Your task to perform on an android device: Search for Italian restaurants on Maps Image 0: 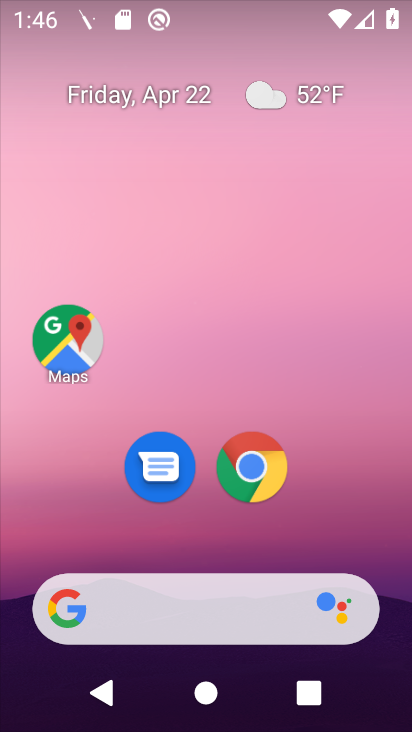
Step 0: click (79, 351)
Your task to perform on an android device: Search for Italian restaurants on Maps Image 1: 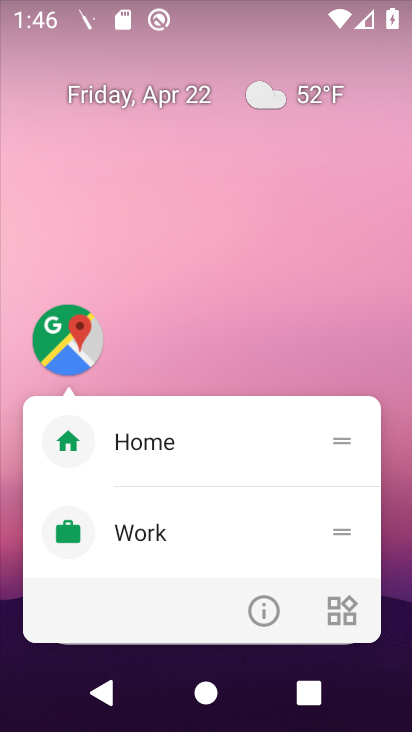
Step 1: click (72, 359)
Your task to perform on an android device: Search for Italian restaurants on Maps Image 2: 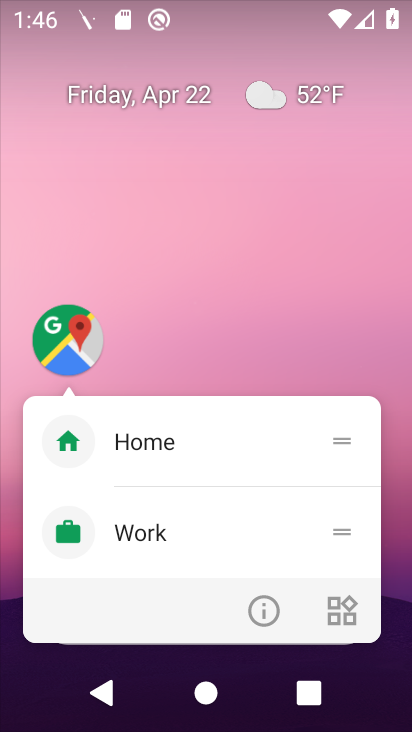
Step 2: click (52, 356)
Your task to perform on an android device: Search for Italian restaurants on Maps Image 3: 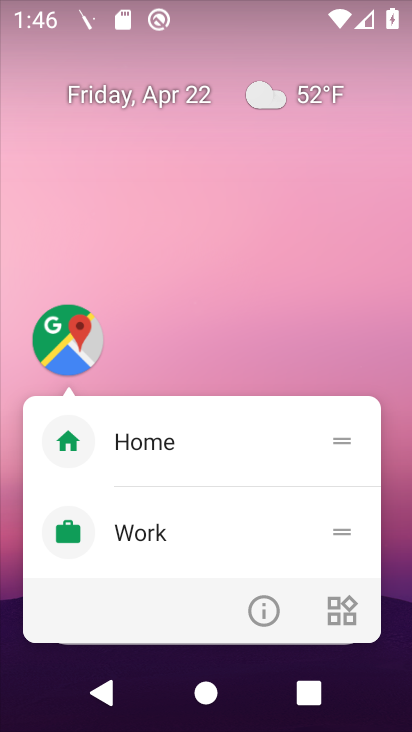
Step 3: click (70, 344)
Your task to perform on an android device: Search for Italian restaurants on Maps Image 4: 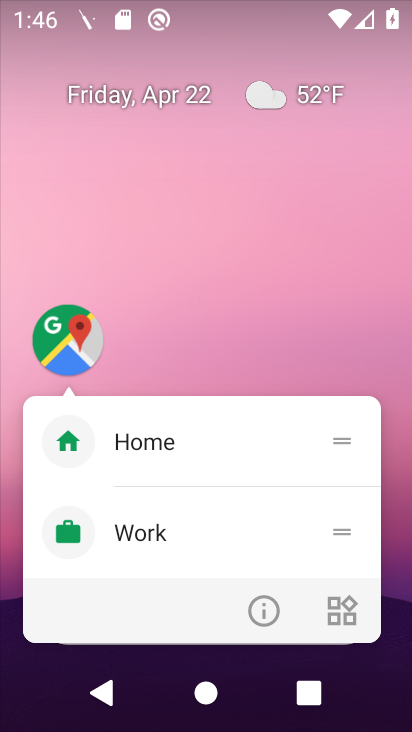
Step 4: click (76, 359)
Your task to perform on an android device: Search for Italian restaurants on Maps Image 5: 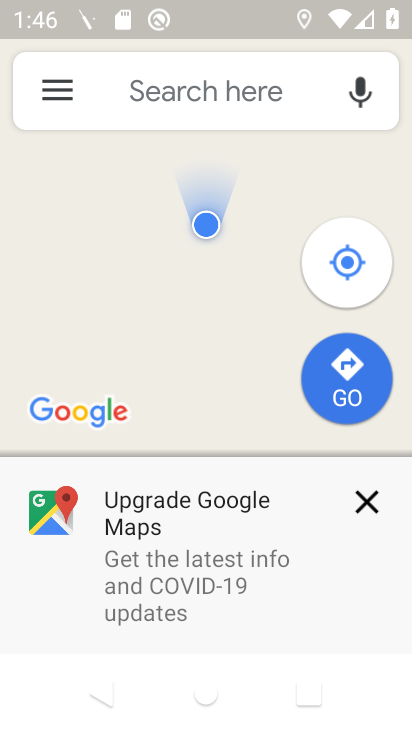
Step 5: click (223, 97)
Your task to perform on an android device: Search for Italian restaurants on Maps Image 6: 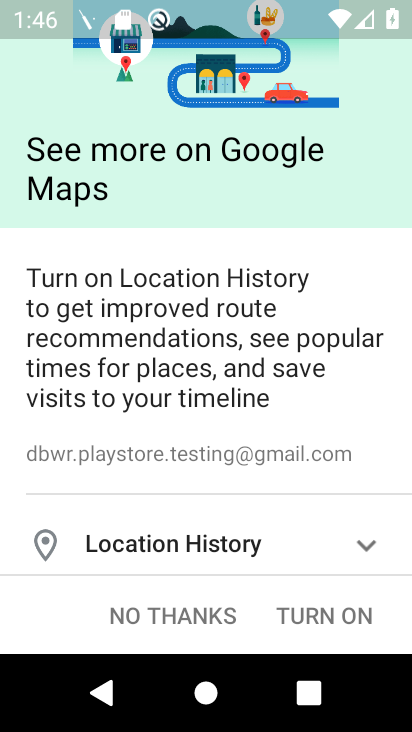
Step 6: press back button
Your task to perform on an android device: Search for Italian restaurants on Maps Image 7: 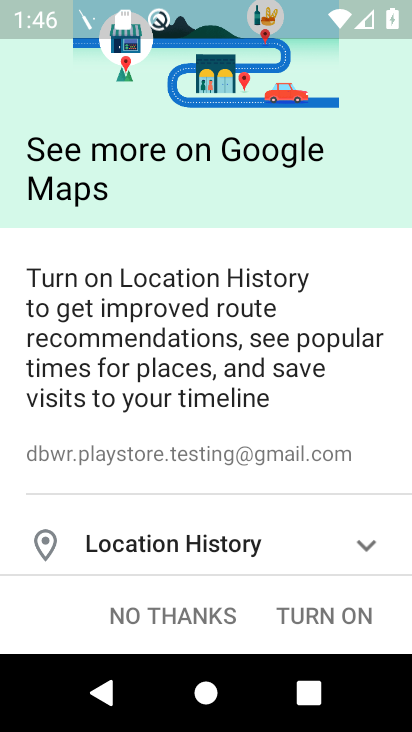
Step 7: type "Italian restaurants"
Your task to perform on an android device: Search for Italian restaurants on Maps Image 8: 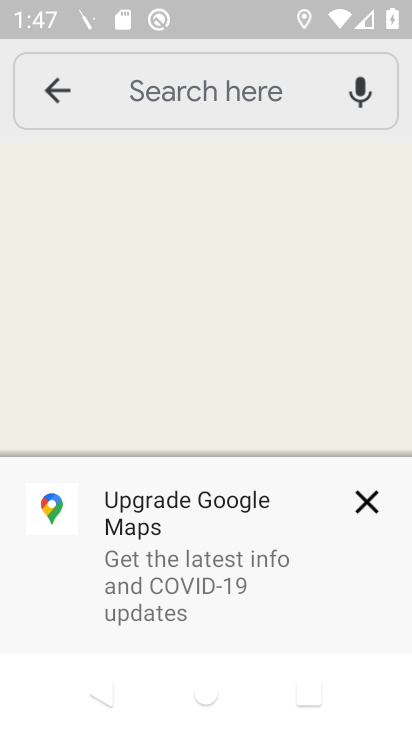
Step 8: click (209, 91)
Your task to perform on an android device: Search for Italian restaurants on Maps Image 9: 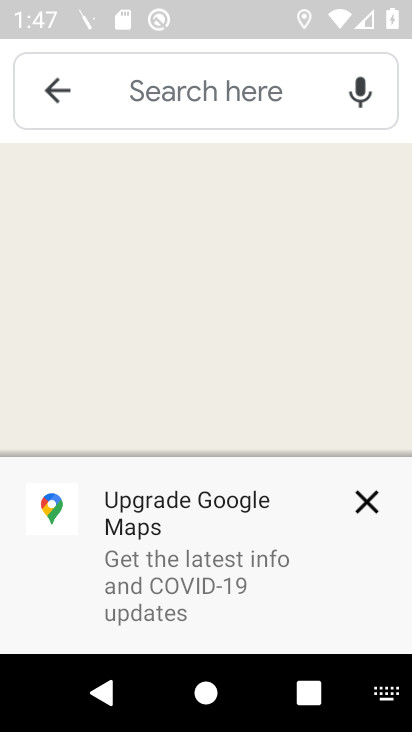
Step 9: type "Italian restaurant"
Your task to perform on an android device: Search for Italian restaurants on Maps Image 10: 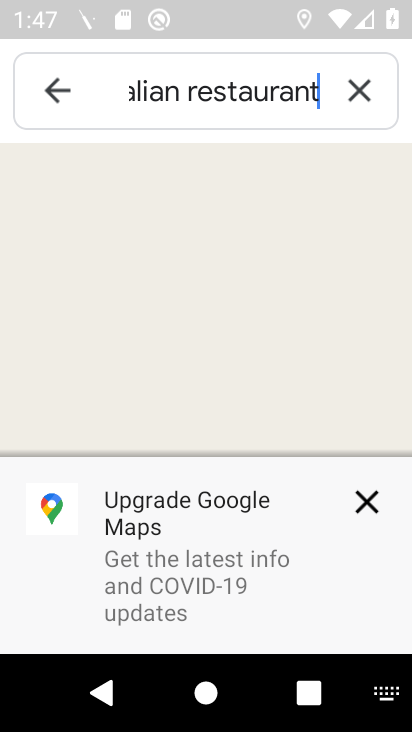
Step 10: click (369, 496)
Your task to perform on an android device: Search for Italian restaurants on Maps Image 11: 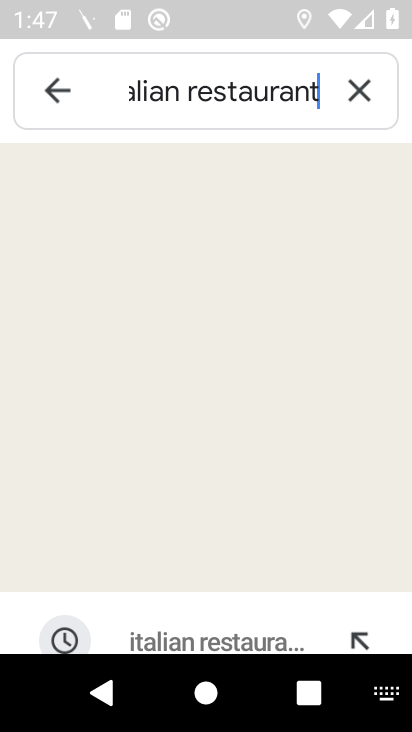
Step 11: task complete